Your task to perform on an android device: Search for sushi restaurants on Maps Image 0: 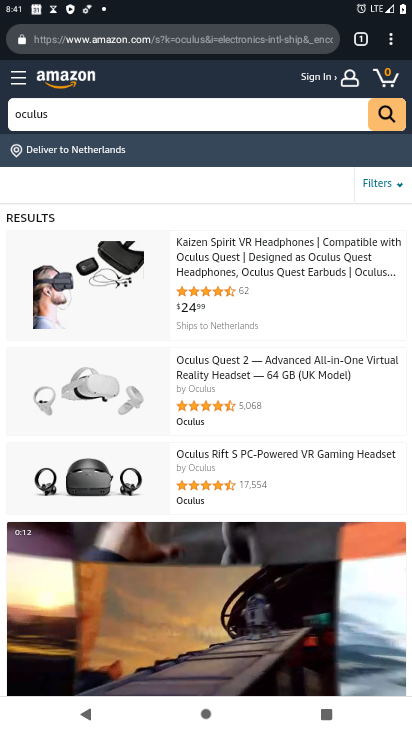
Step 0: press home button
Your task to perform on an android device: Search for sushi restaurants on Maps Image 1: 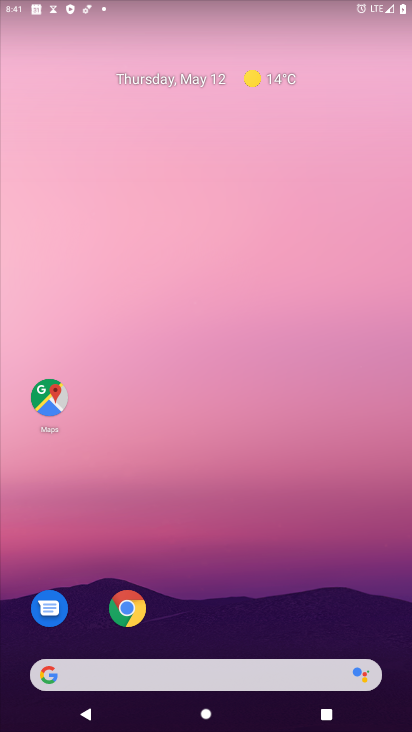
Step 1: click (42, 402)
Your task to perform on an android device: Search for sushi restaurants on Maps Image 2: 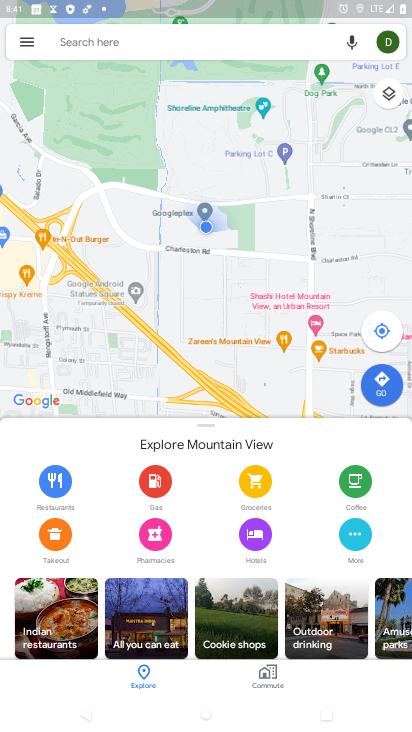
Step 2: click (146, 33)
Your task to perform on an android device: Search for sushi restaurants on Maps Image 3: 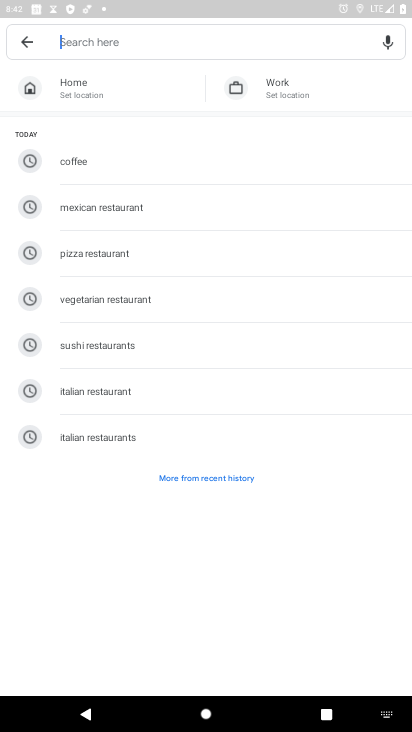
Step 3: click (106, 346)
Your task to perform on an android device: Search for sushi restaurants on Maps Image 4: 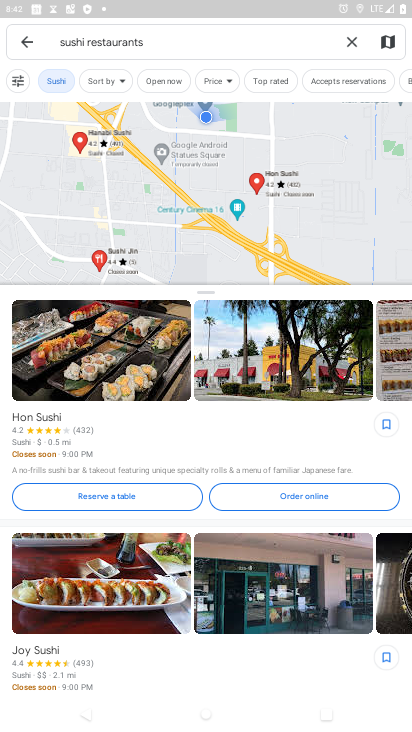
Step 4: task complete